Your task to perform on an android device: all mails in gmail Image 0: 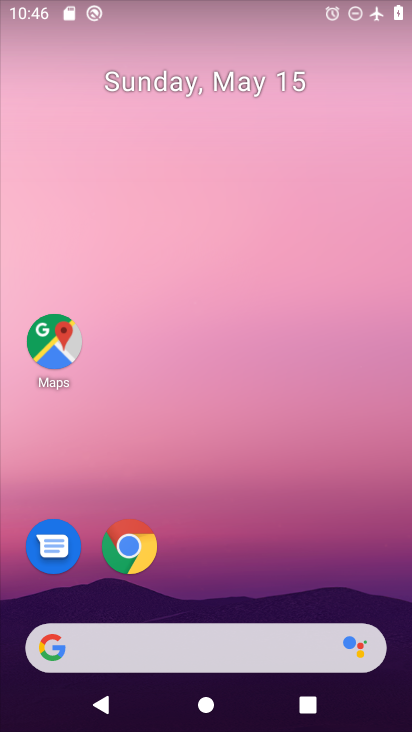
Step 0: drag from (305, 561) to (352, 206)
Your task to perform on an android device: all mails in gmail Image 1: 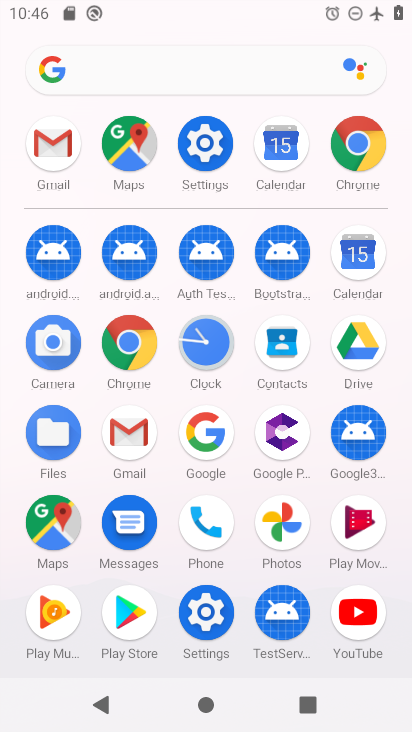
Step 1: click (55, 152)
Your task to perform on an android device: all mails in gmail Image 2: 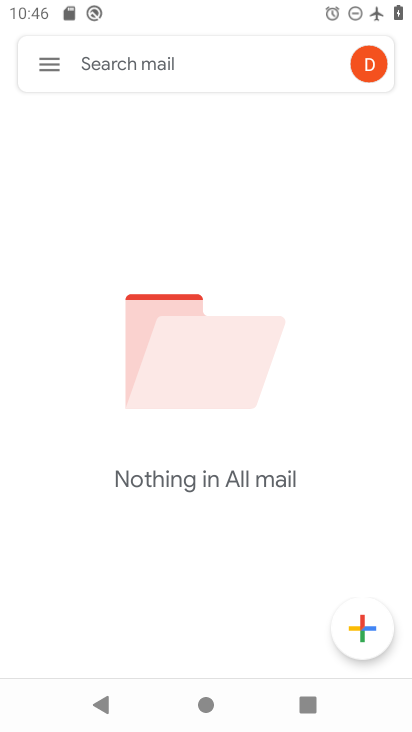
Step 2: click (52, 58)
Your task to perform on an android device: all mails in gmail Image 3: 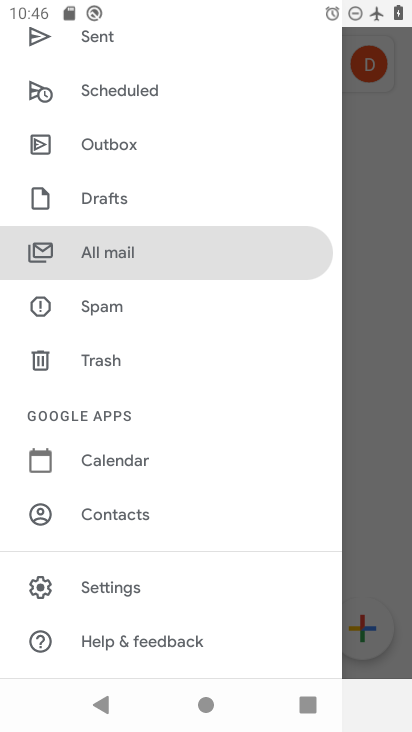
Step 3: click (113, 254)
Your task to perform on an android device: all mails in gmail Image 4: 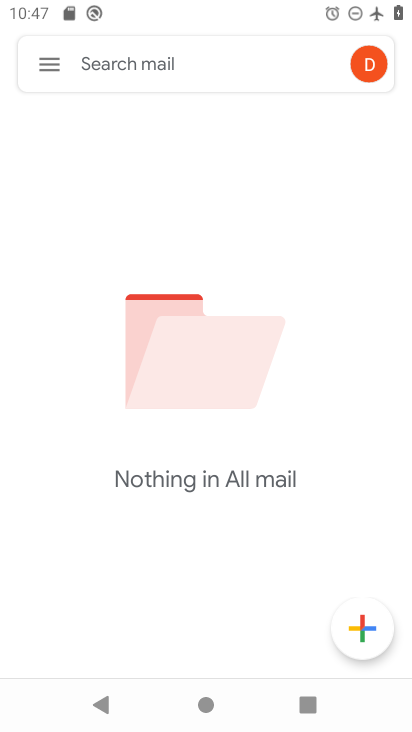
Step 4: task complete